Your task to perform on an android device: Open Google Maps and go to "Timeline" Image 0: 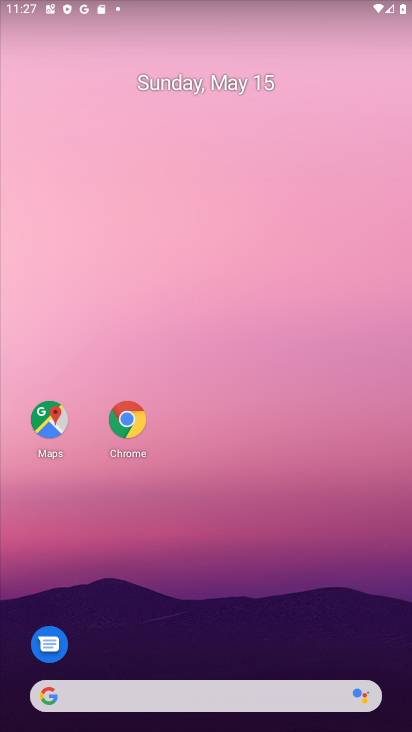
Step 0: drag from (190, 652) to (243, 61)
Your task to perform on an android device: Open Google Maps and go to "Timeline" Image 1: 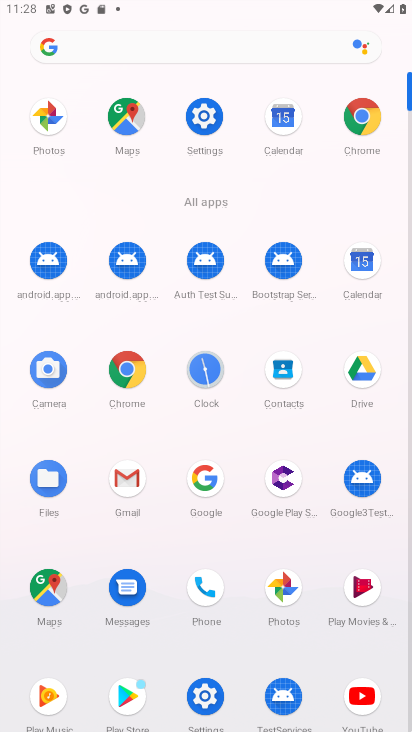
Step 1: click (57, 576)
Your task to perform on an android device: Open Google Maps and go to "Timeline" Image 2: 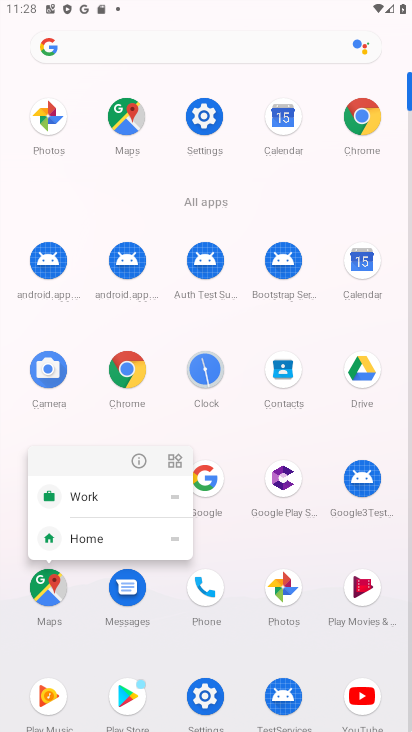
Step 2: click (134, 469)
Your task to perform on an android device: Open Google Maps and go to "Timeline" Image 3: 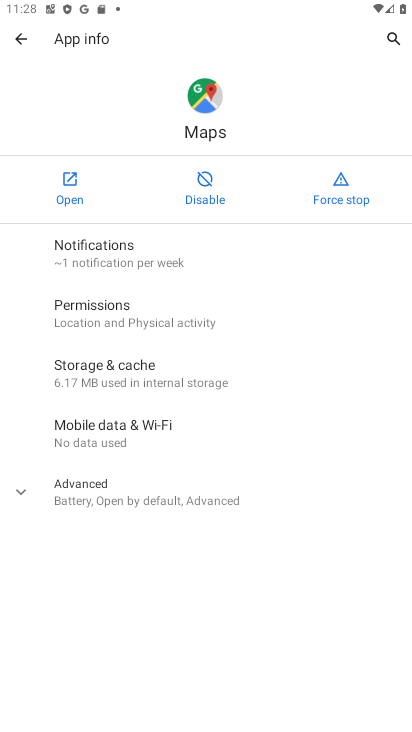
Step 3: click (58, 188)
Your task to perform on an android device: Open Google Maps and go to "Timeline" Image 4: 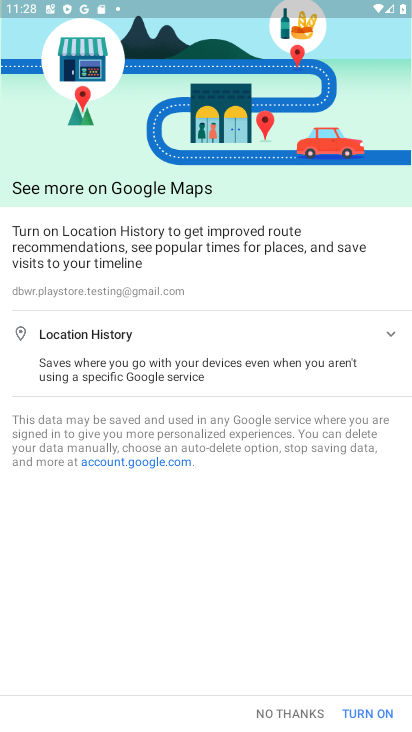
Step 4: click (370, 714)
Your task to perform on an android device: Open Google Maps and go to "Timeline" Image 5: 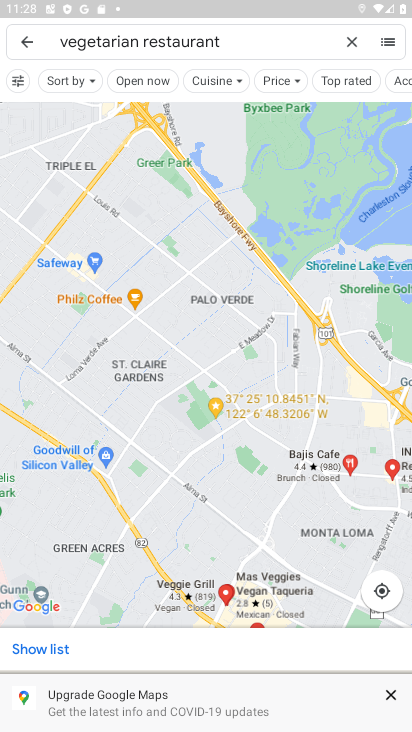
Step 5: click (18, 32)
Your task to perform on an android device: Open Google Maps and go to "Timeline" Image 6: 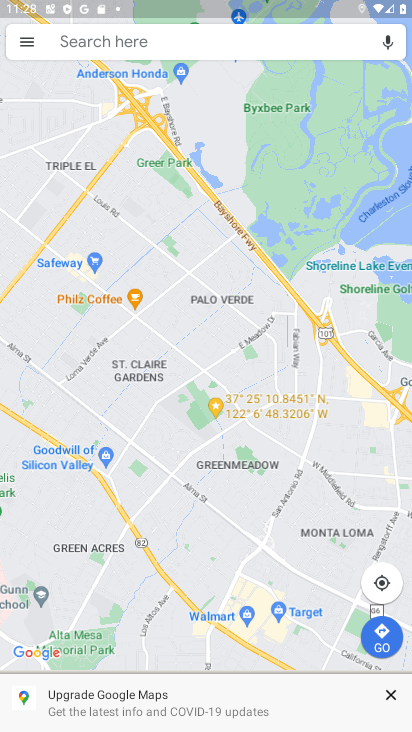
Step 6: click (18, 32)
Your task to perform on an android device: Open Google Maps and go to "Timeline" Image 7: 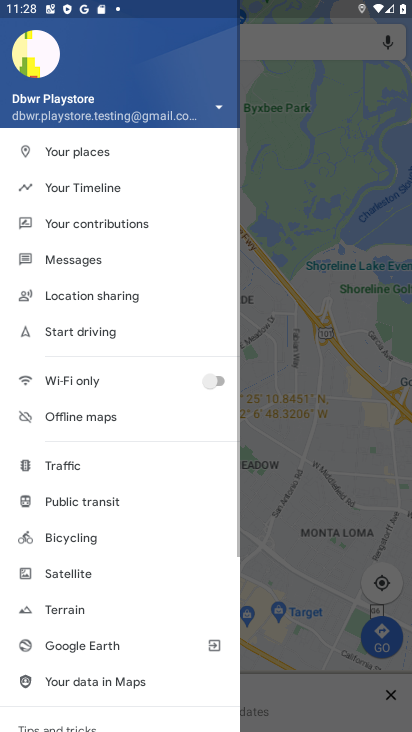
Step 7: click (100, 189)
Your task to perform on an android device: Open Google Maps and go to "Timeline" Image 8: 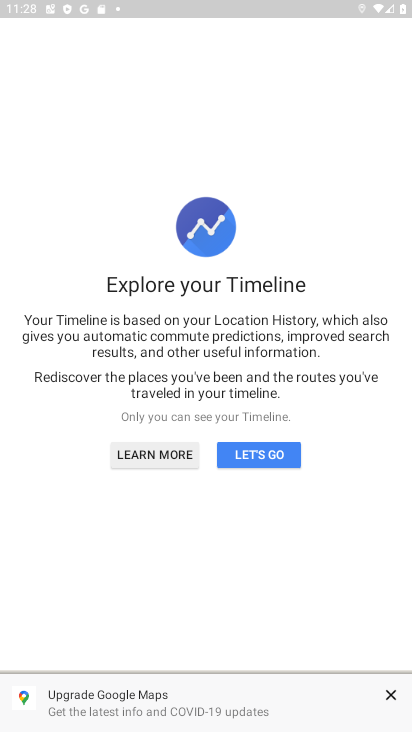
Step 8: drag from (227, 621) to (274, 355)
Your task to perform on an android device: Open Google Maps and go to "Timeline" Image 9: 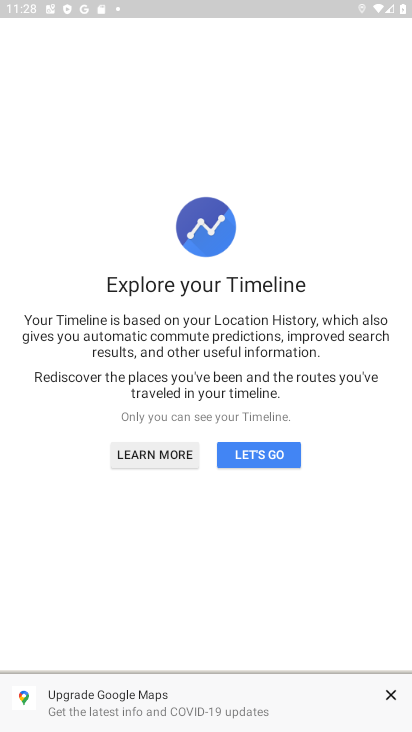
Step 9: click (250, 456)
Your task to perform on an android device: Open Google Maps and go to "Timeline" Image 10: 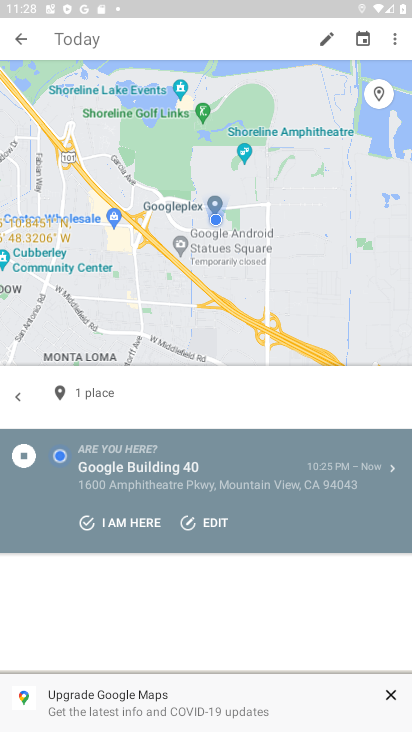
Step 10: task complete